Your task to perform on an android device: open device folders in google photos Image 0: 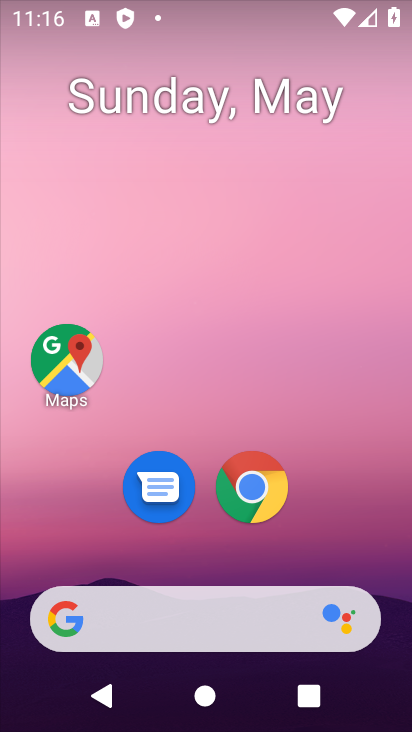
Step 0: drag from (251, 576) to (380, 2)
Your task to perform on an android device: open device folders in google photos Image 1: 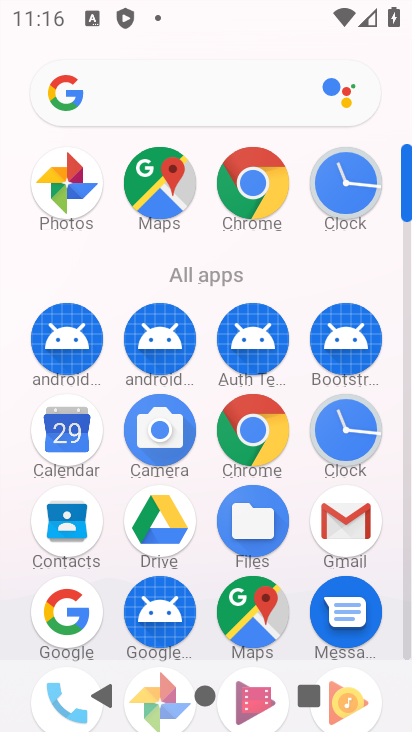
Step 1: drag from (237, 480) to (245, 271)
Your task to perform on an android device: open device folders in google photos Image 2: 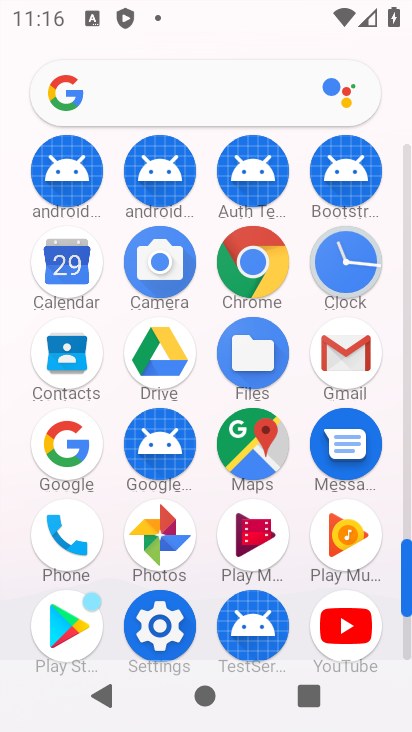
Step 2: click (153, 541)
Your task to perform on an android device: open device folders in google photos Image 3: 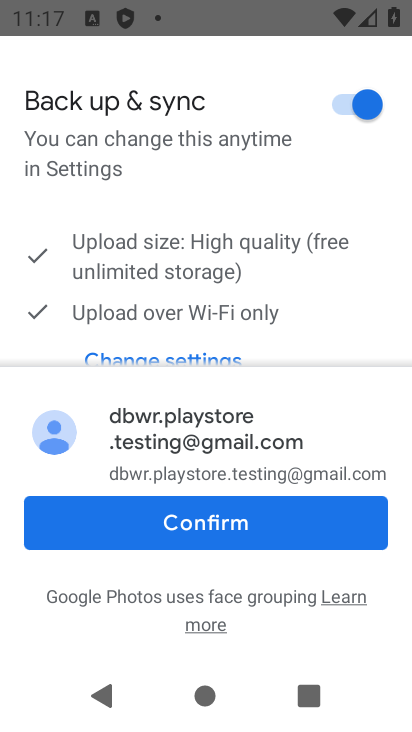
Step 3: click (152, 540)
Your task to perform on an android device: open device folders in google photos Image 4: 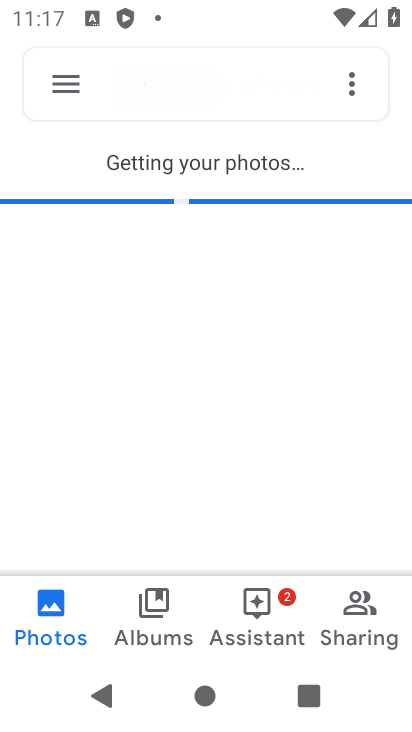
Step 4: click (60, 86)
Your task to perform on an android device: open device folders in google photos Image 5: 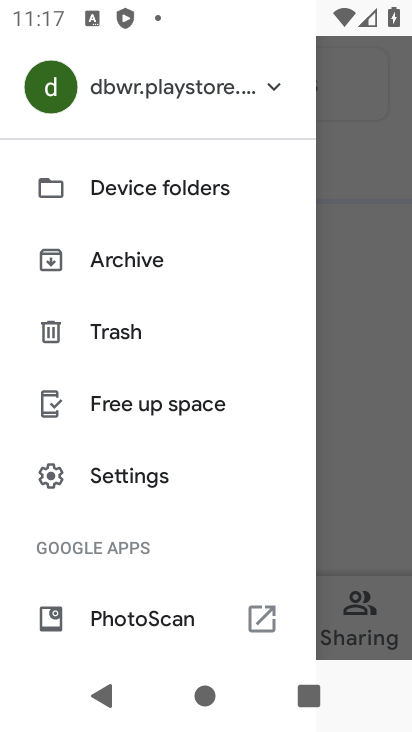
Step 5: click (149, 194)
Your task to perform on an android device: open device folders in google photos Image 6: 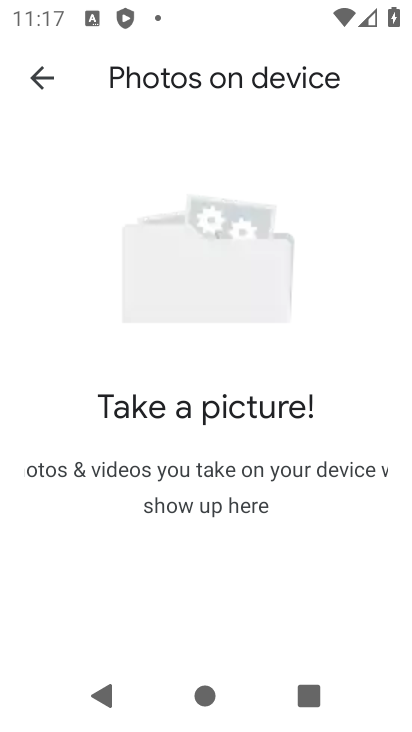
Step 6: task complete